Your task to perform on an android device: move an email to a new category in the gmail app Image 0: 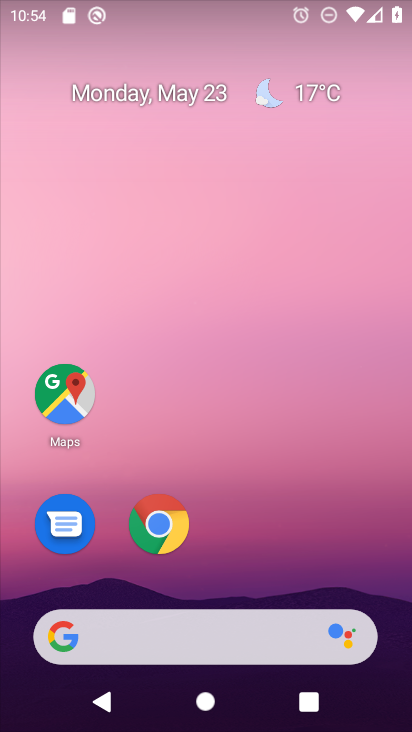
Step 0: drag from (214, 574) to (193, 89)
Your task to perform on an android device: move an email to a new category in the gmail app Image 1: 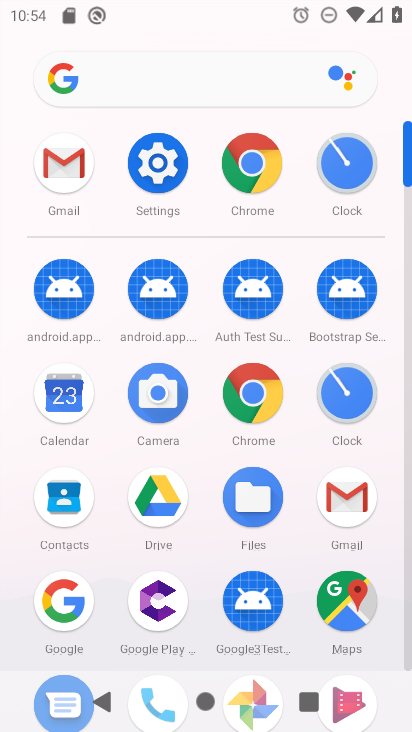
Step 1: click (345, 511)
Your task to perform on an android device: move an email to a new category in the gmail app Image 2: 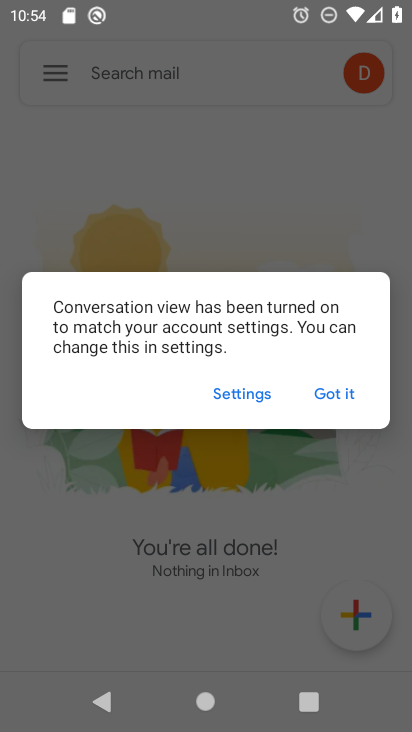
Step 2: click (339, 390)
Your task to perform on an android device: move an email to a new category in the gmail app Image 3: 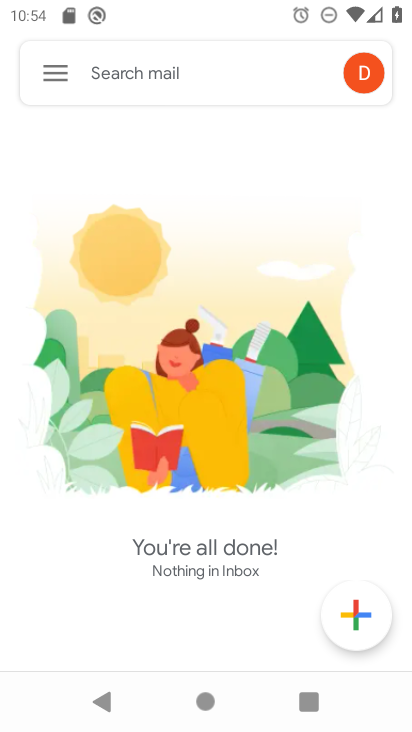
Step 3: click (41, 57)
Your task to perform on an android device: move an email to a new category in the gmail app Image 4: 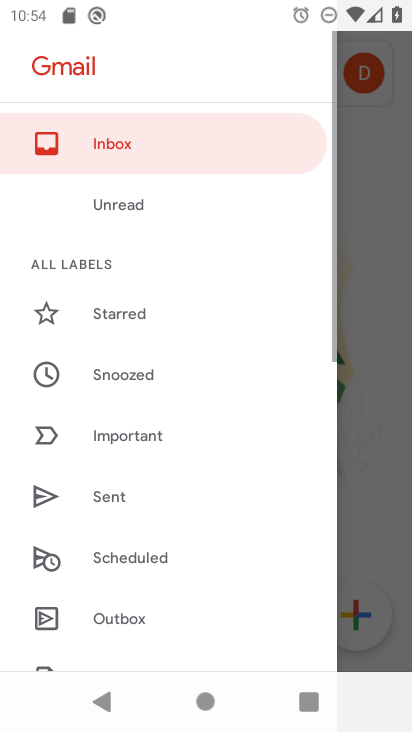
Step 4: drag from (137, 557) to (168, 219)
Your task to perform on an android device: move an email to a new category in the gmail app Image 5: 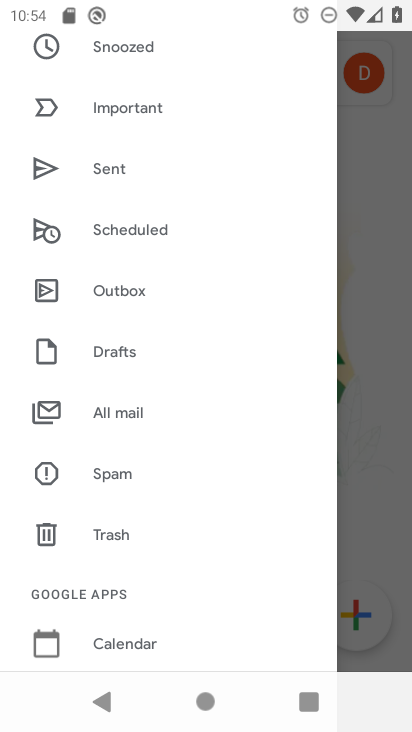
Step 5: drag from (156, 594) to (170, 242)
Your task to perform on an android device: move an email to a new category in the gmail app Image 6: 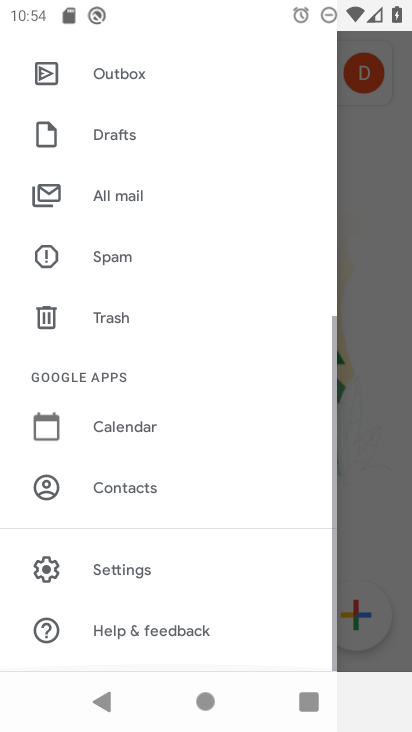
Step 6: click (124, 569)
Your task to perform on an android device: move an email to a new category in the gmail app Image 7: 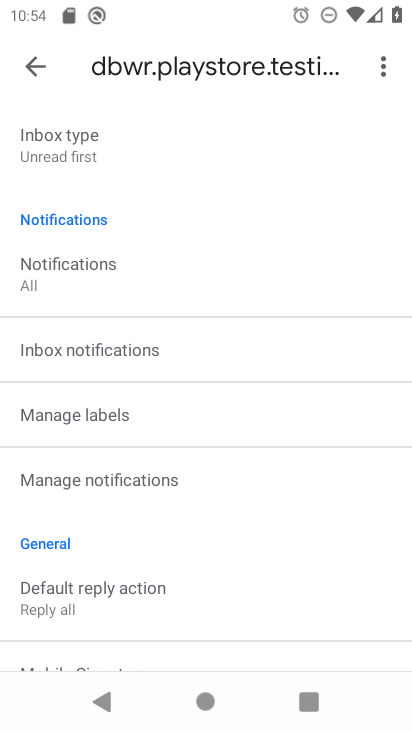
Step 7: click (26, 56)
Your task to perform on an android device: move an email to a new category in the gmail app Image 8: 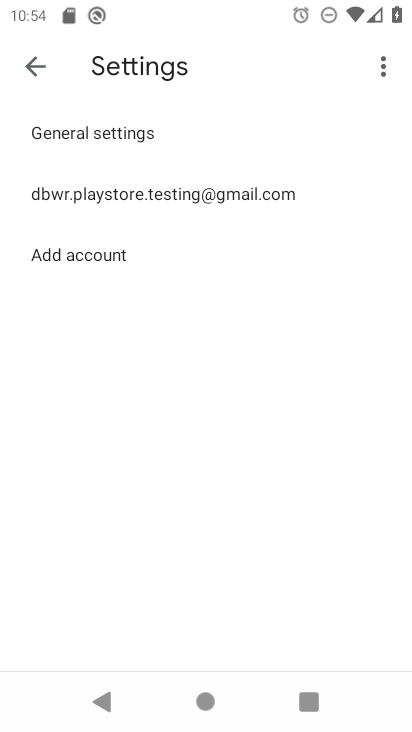
Step 8: click (26, 56)
Your task to perform on an android device: move an email to a new category in the gmail app Image 9: 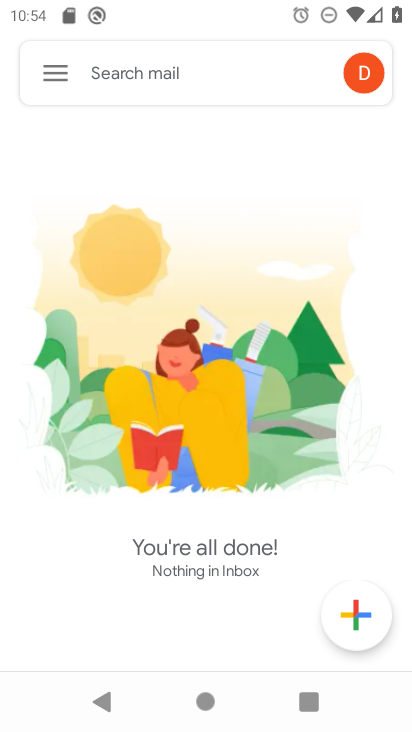
Step 9: task complete